Your task to perform on an android device: check storage Image 0: 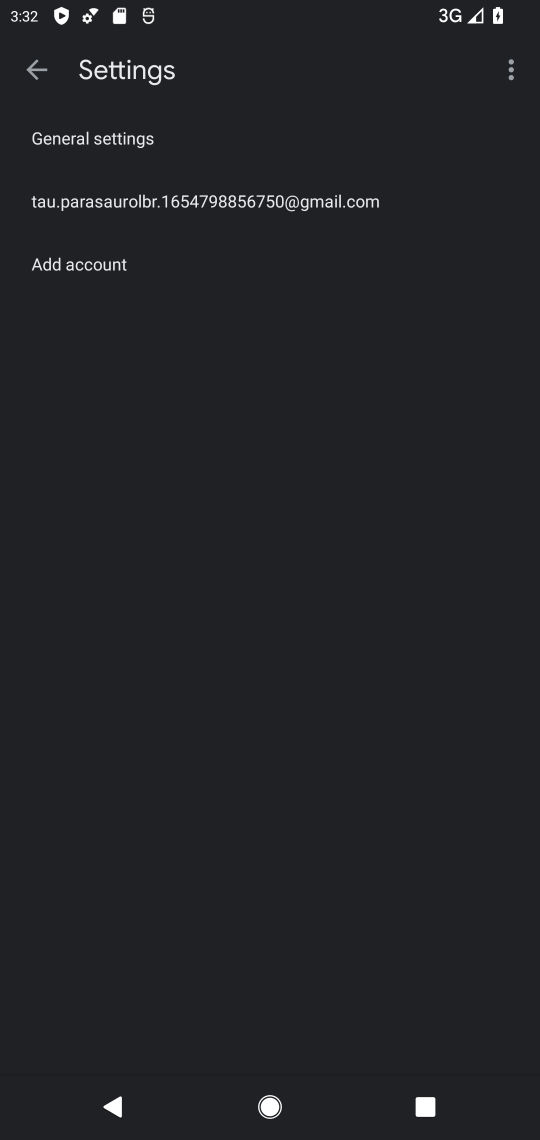
Step 0: press home button
Your task to perform on an android device: check storage Image 1: 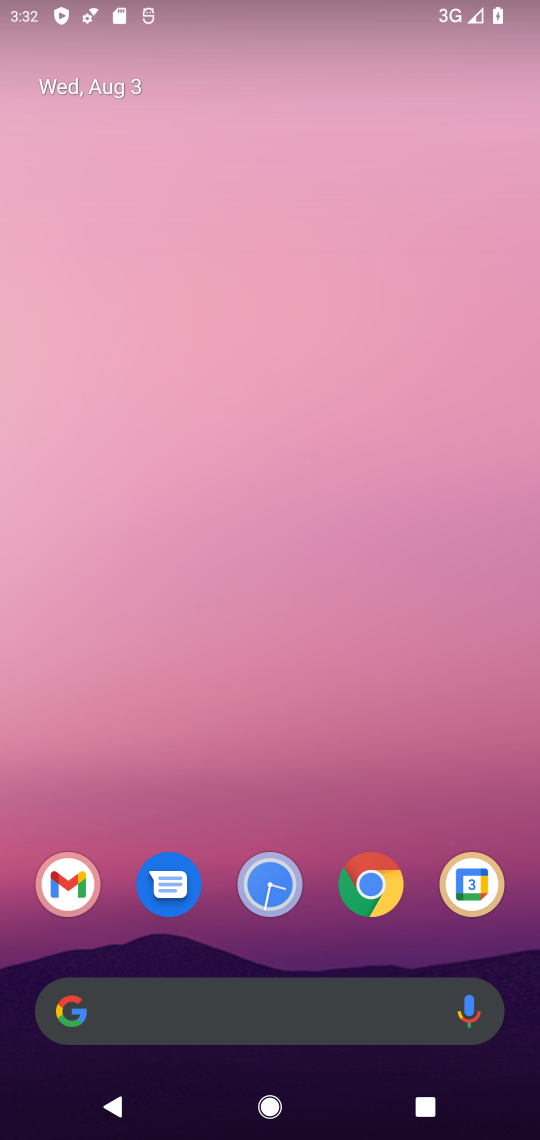
Step 1: drag from (228, 962) to (203, 24)
Your task to perform on an android device: check storage Image 2: 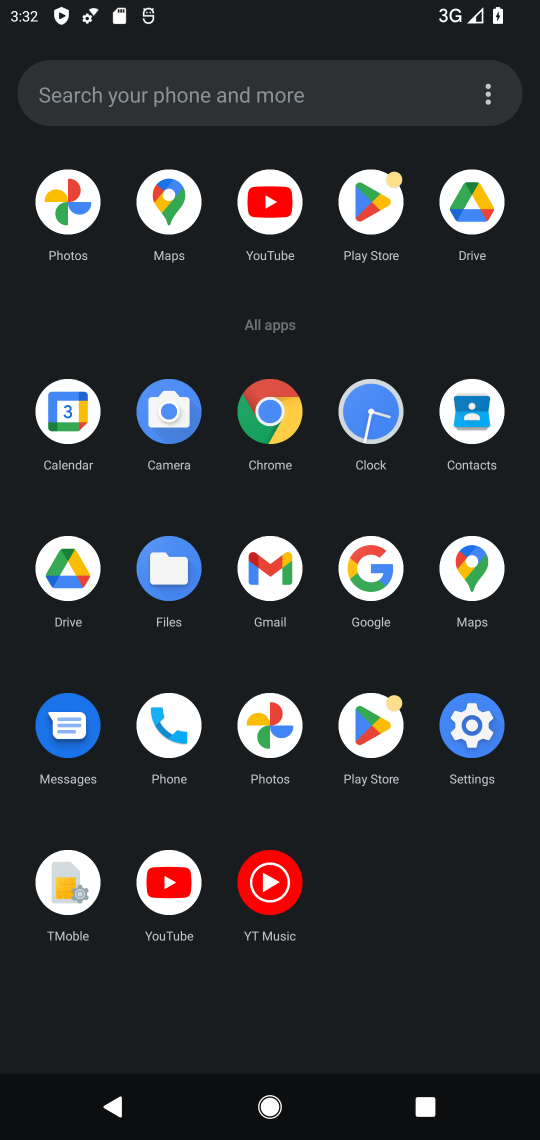
Step 2: click (449, 735)
Your task to perform on an android device: check storage Image 3: 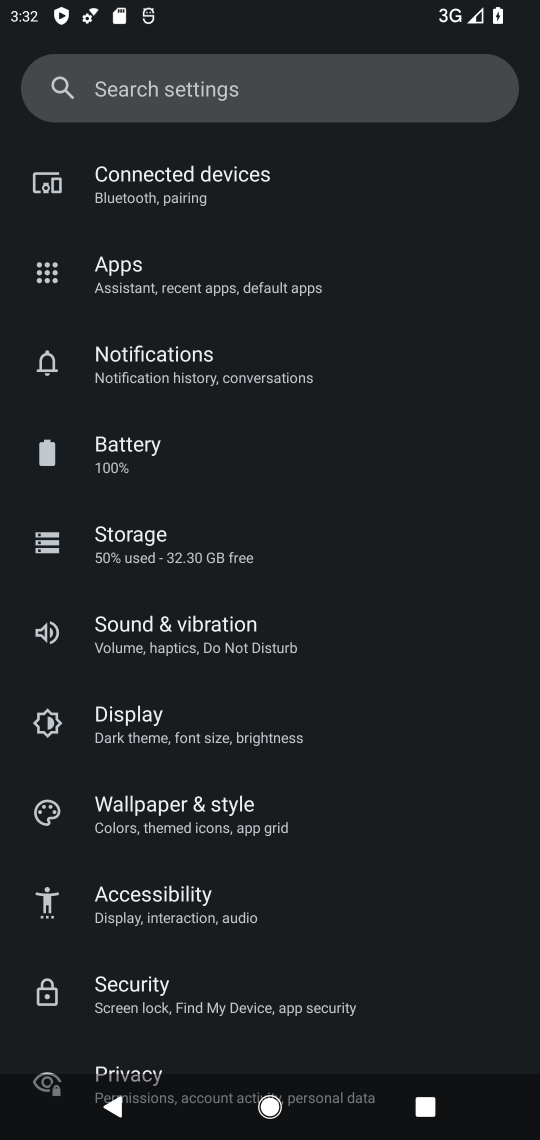
Step 3: click (228, 573)
Your task to perform on an android device: check storage Image 4: 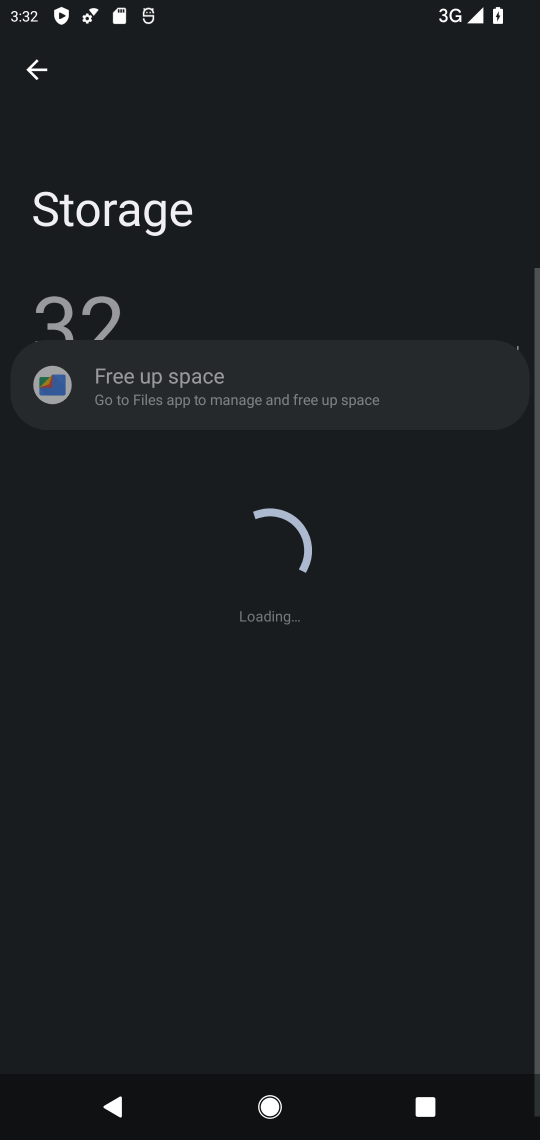
Step 4: task complete